Your task to perform on an android device: What is the recent news? Image 0: 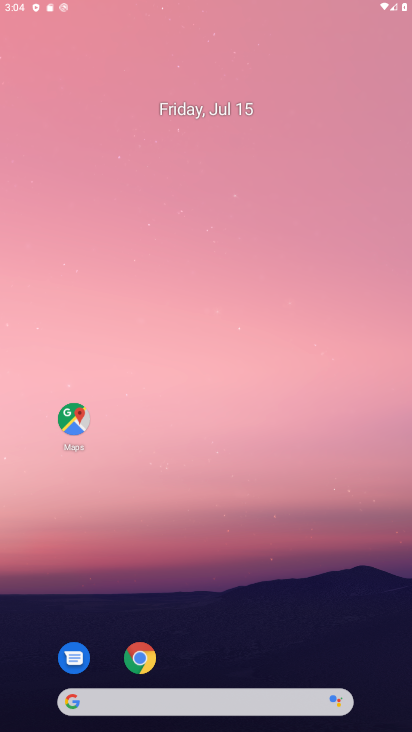
Step 0: click (253, 100)
Your task to perform on an android device: What is the recent news? Image 1: 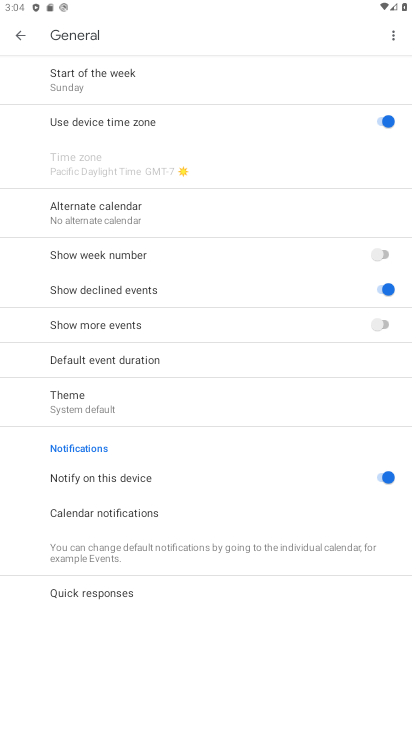
Step 1: drag from (202, 547) to (303, 291)
Your task to perform on an android device: What is the recent news? Image 2: 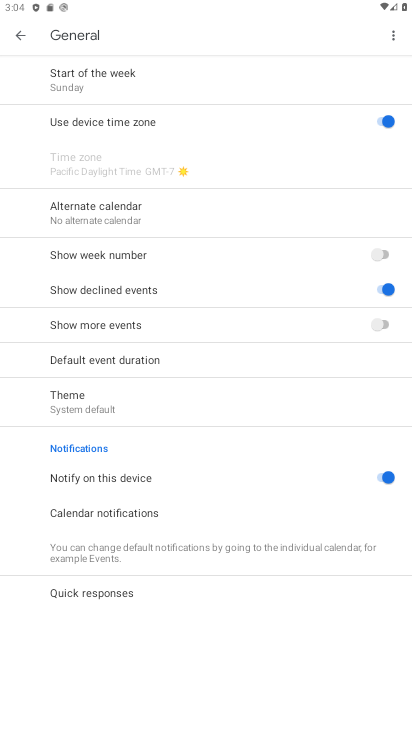
Step 2: press home button
Your task to perform on an android device: What is the recent news? Image 3: 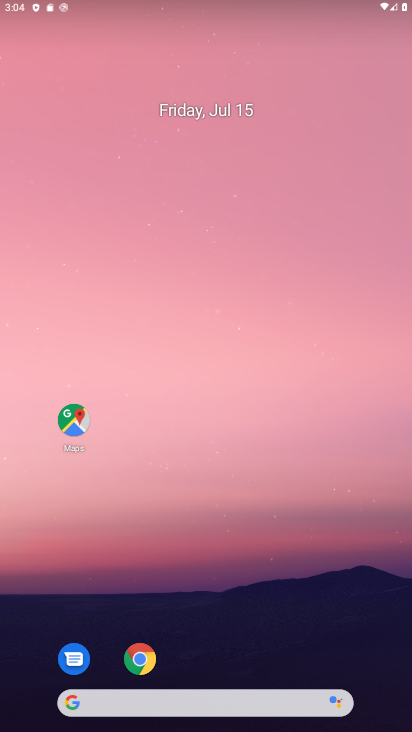
Step 3: drag from (190, 632) to (234, 237)
Your task to perform on an android device: What is the recent news? Image 4: 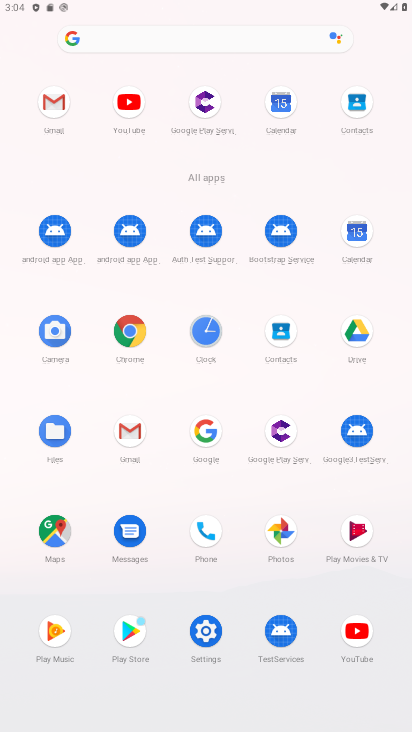
Step 4: click (164, 27)
Your task to perform on an android device: What is the recent news? Image 5: 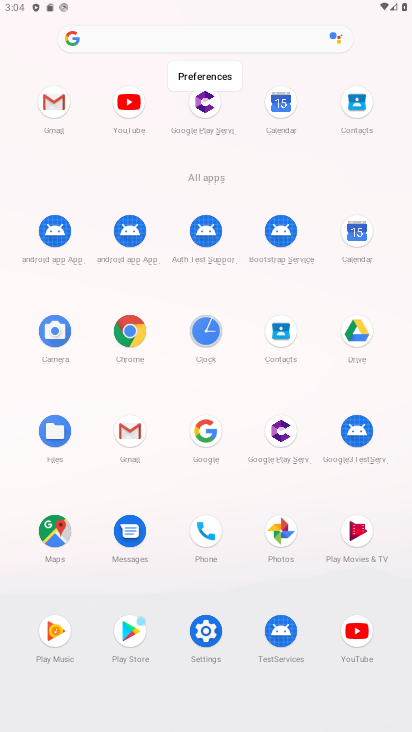
Step 5: click (127, 42)
Your task to perform on an android device: What is the recent news? Image 6: 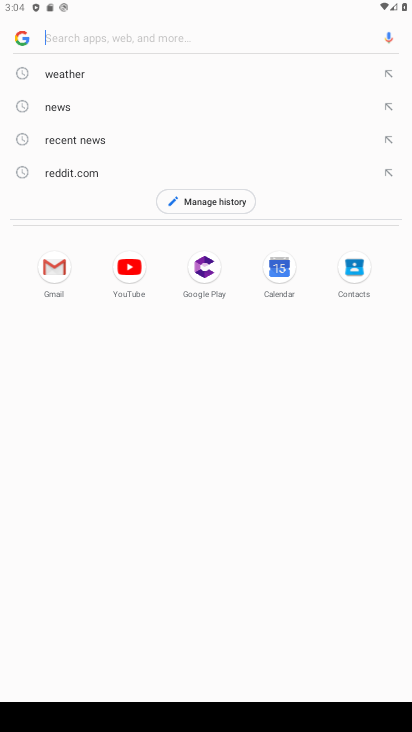
Step 6: type "recent news?"
Your task to perform on an android device: What is the recent news? Image 7: 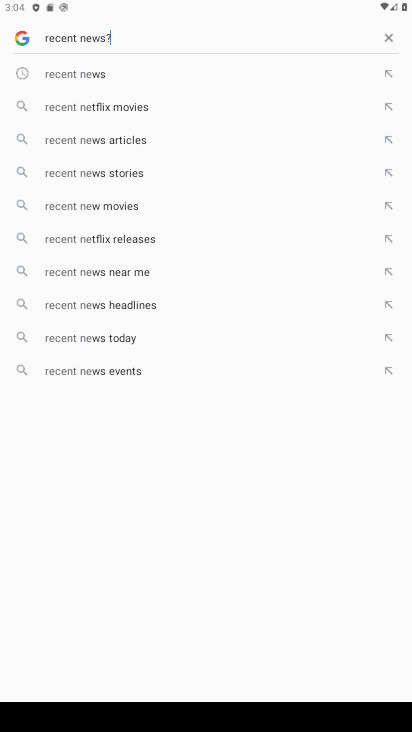
Step 7: type ""
Your task to perform on an android device: What is the recent news? Image 8: 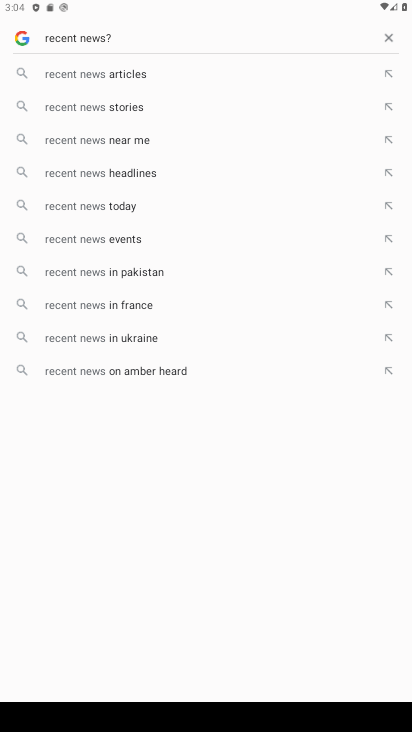
Step 8: click (126, 199)
Your task to perform on an android device: What is the recent news? Image 9: 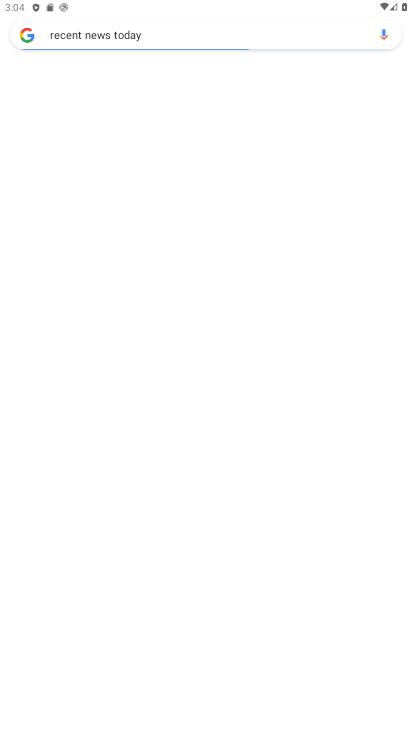
Step 9: drag from (218, 601) to (271, 174)
Your task to perform on an android device: What is the recent news? Image 10: 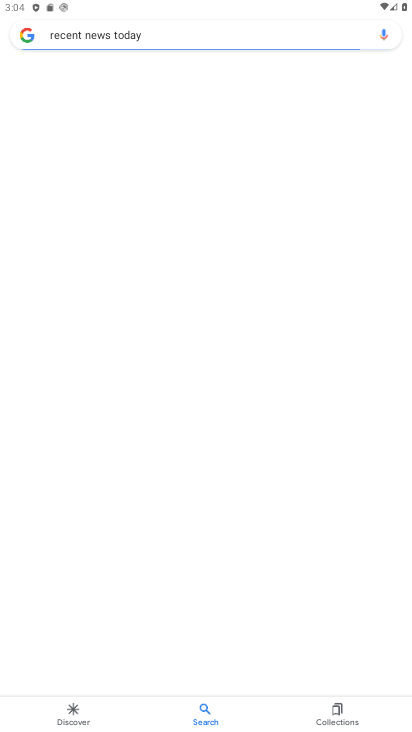
Step 10: drag from (216, 213) to (231, 569)
Your task to perform on an android device: What is the recent news? Image 11: 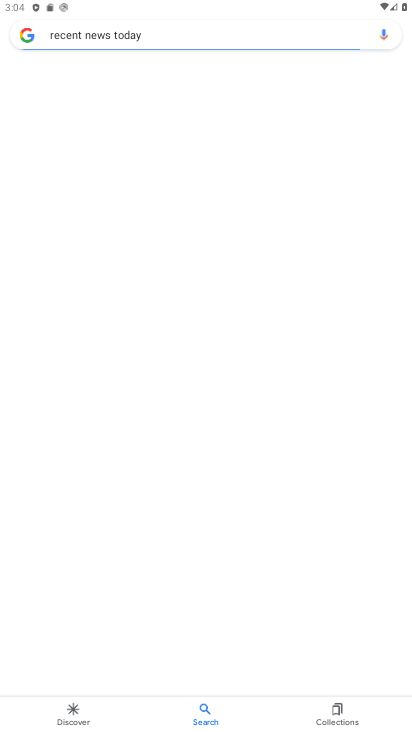
Step 11: drag from (257, 255) to (285, 400)
Your task to perform on an android device: What is the recent news? Image 12: 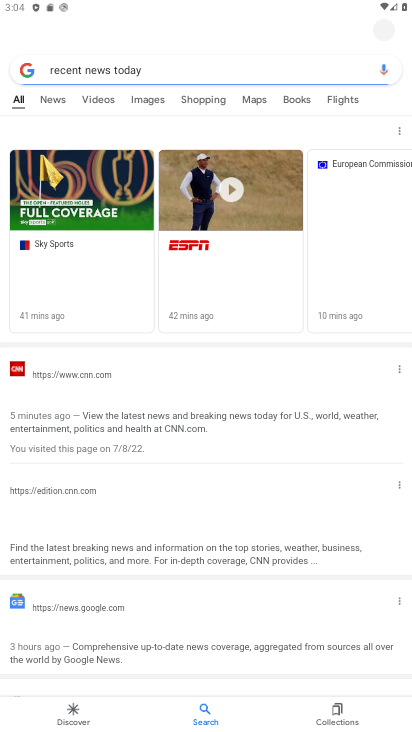
Step 12: drag from (195, 489) to (252, 295)
Your task to perform on an android device: What is the recent news? Image 13: 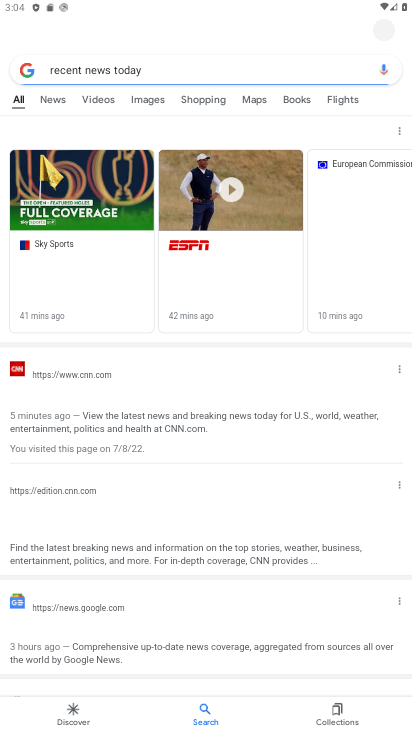
Step 13: drag from (247, 205) to (291, 556)
Your task to perform on an android device: What is the recent news? Image 14: 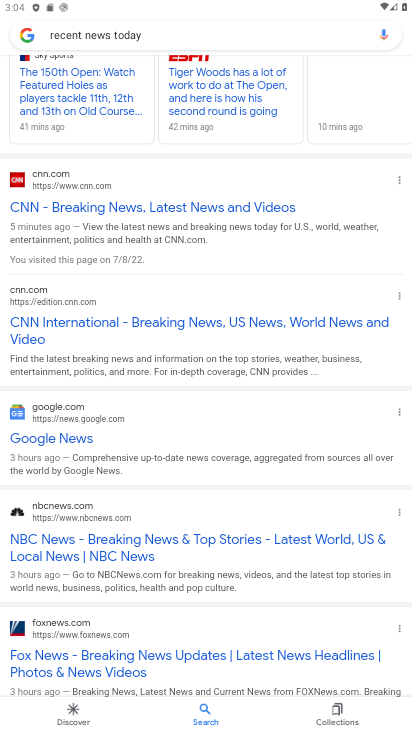
Step 14: drag from (283, 543) to (296, 260)
Your task to perform on an android device: What is the recent news? Image 15: 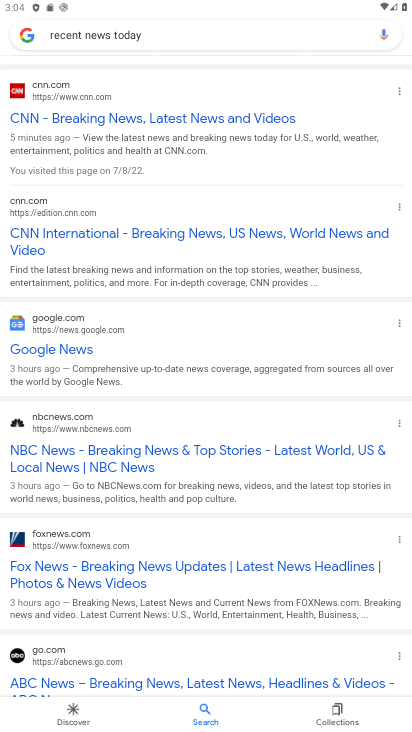
Step 15: drag from (283, 194) to (289, 615)
Your task to perform on an android device: What is the recent news? Image 16: 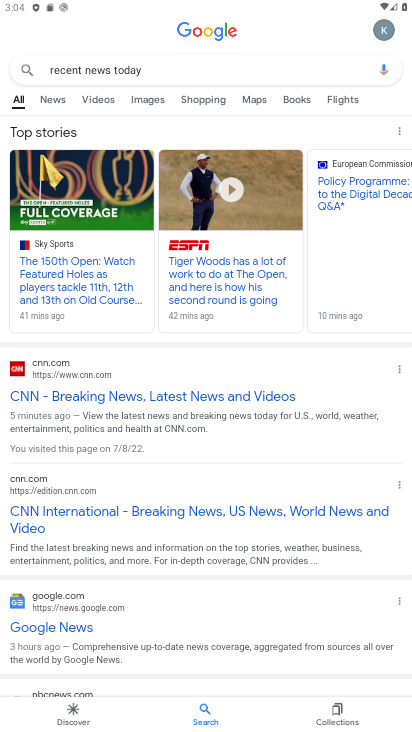
Step 16: click (76, 402)
Your task to perform on an android device: What is the recent news? Image 17: 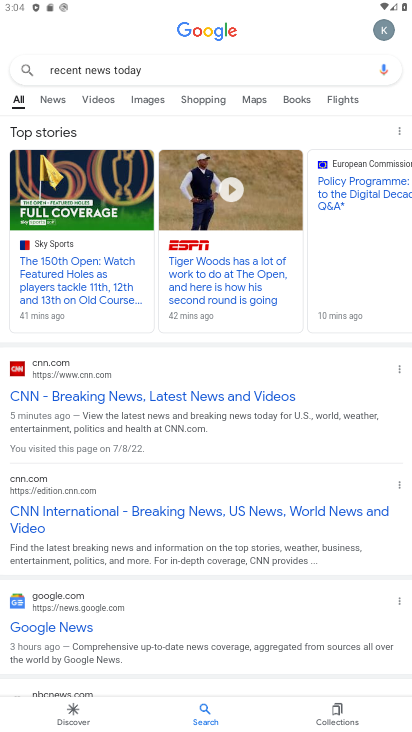
Step 17: task complete